Your task to perform on an android device: Go to network settings Image 0: 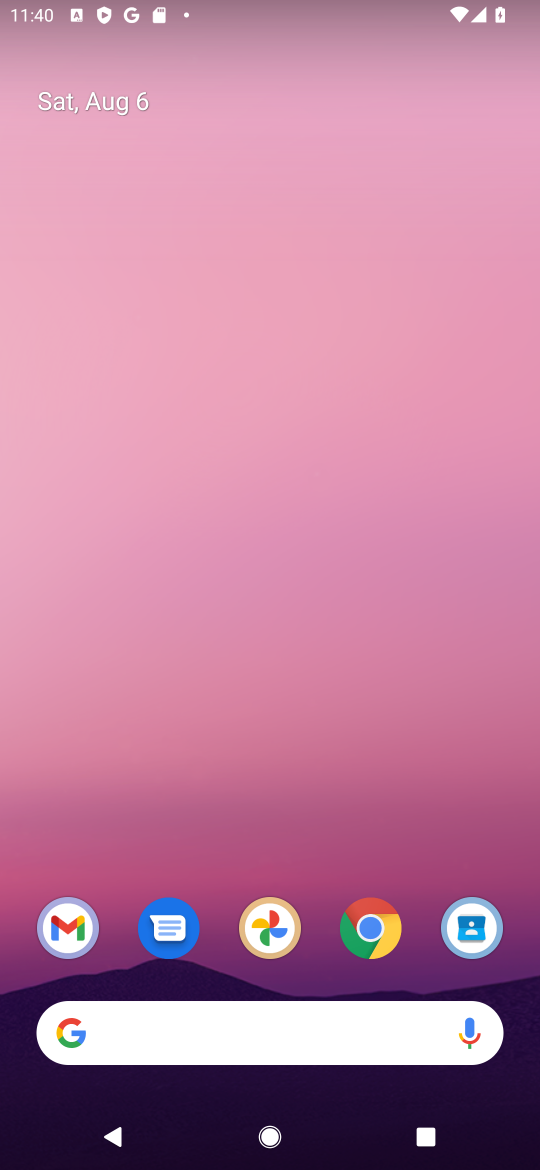
Step 0: drag from (240, 6) to (232, 826)
Your task to perform on an android device: Go to network settings Image 1: 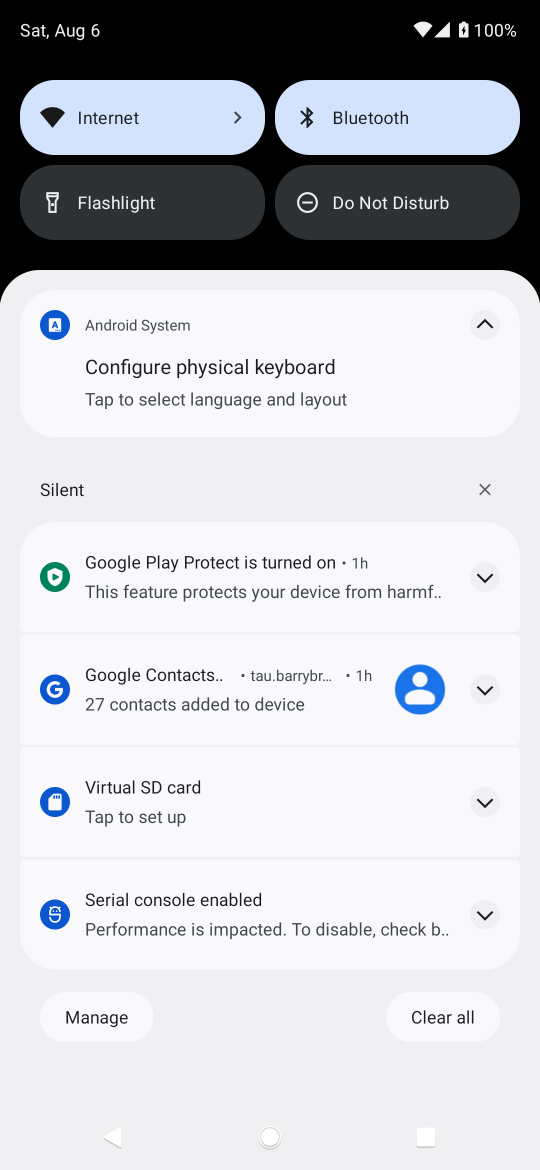
Step 1: click (219, 118)
Your task to perform on an android device: Go to network settings Image 2: 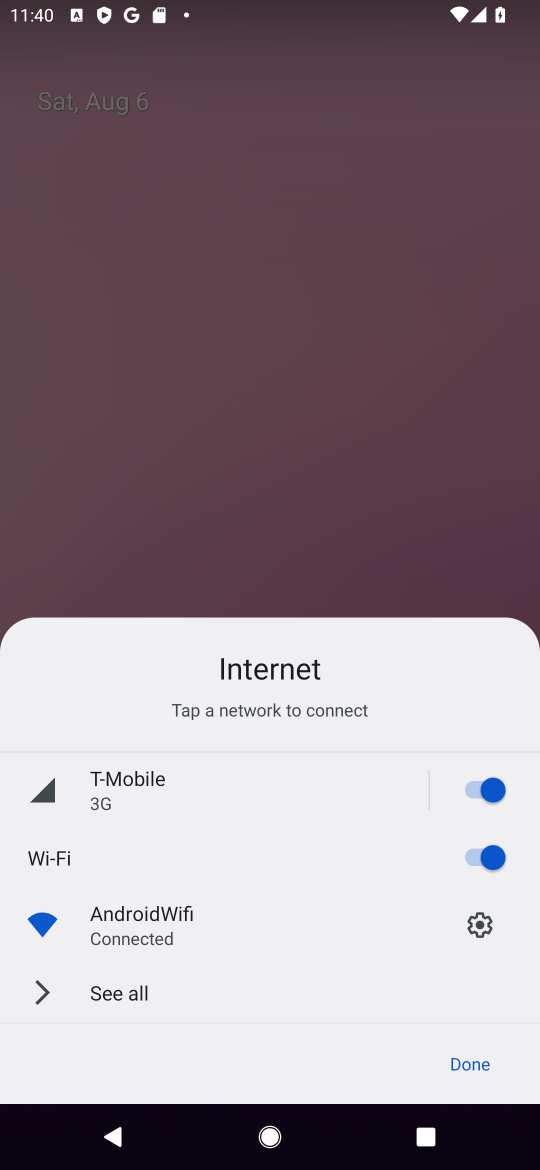
Step 2: click (239, 789)
Your task to perform on an android device: Go to network settings Image 3: 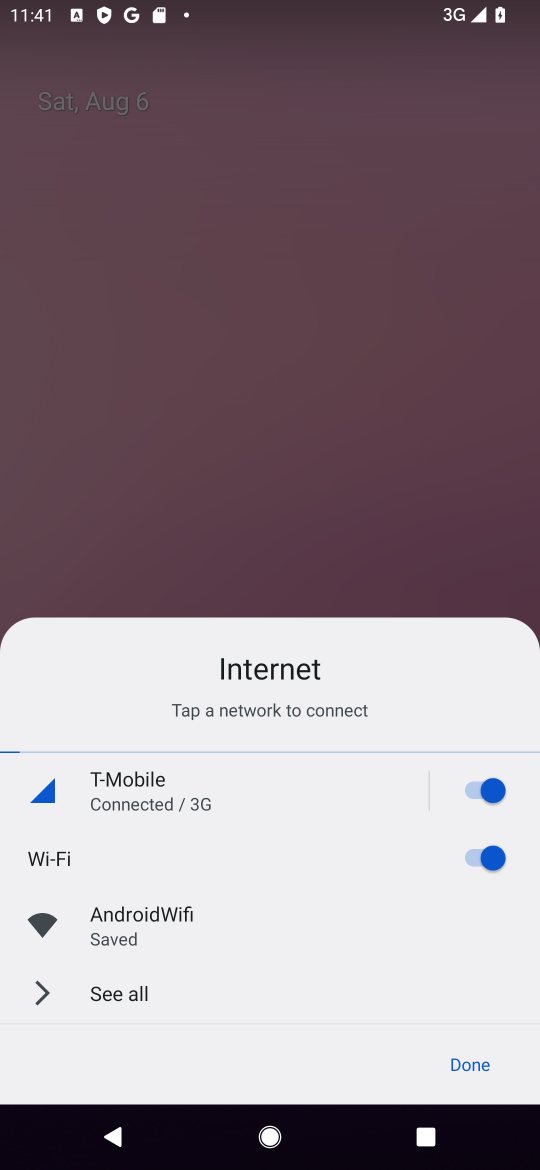
Step 3: click (63, 991)
Your task to perform on an android device: Go to network settings Image 4: 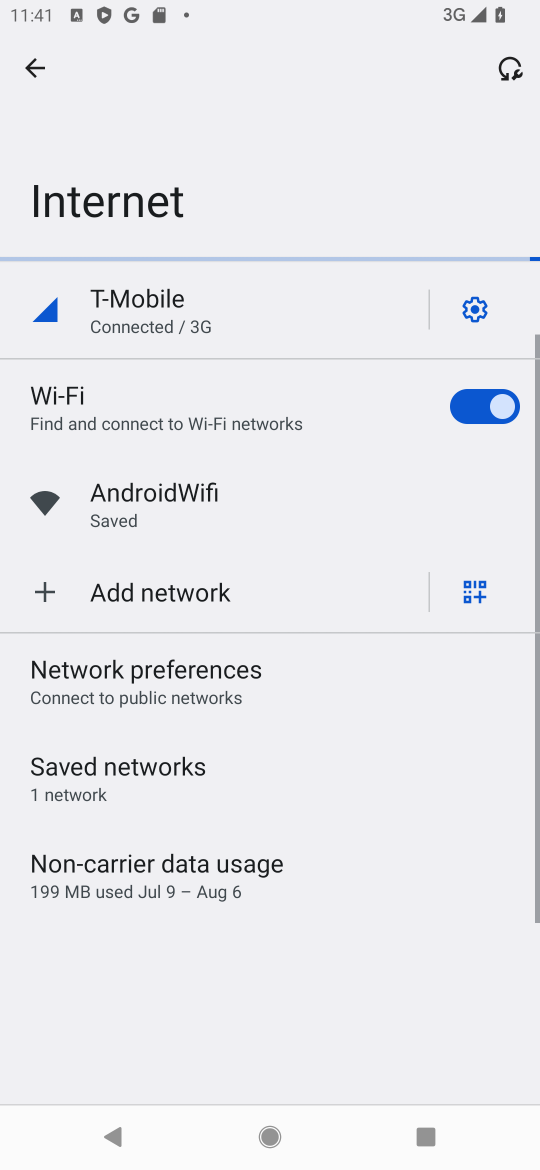
Step 4: task complete